Your task to perform on an android device: set default search engine in the chrome app Image 0: 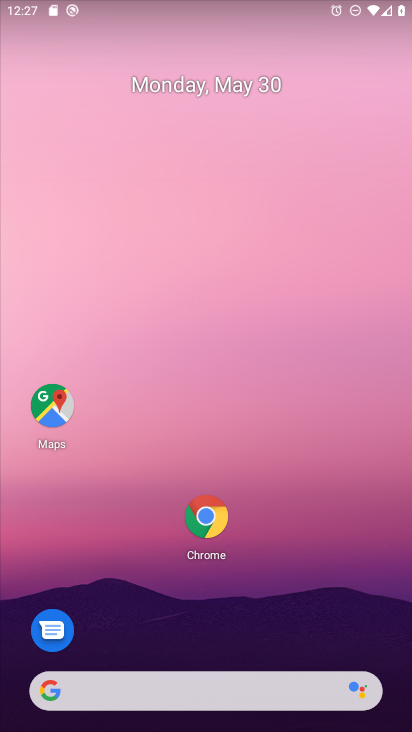
Step 0: press home button
Your task to perform on an android device: set default search engine in the chrome app Image 1: 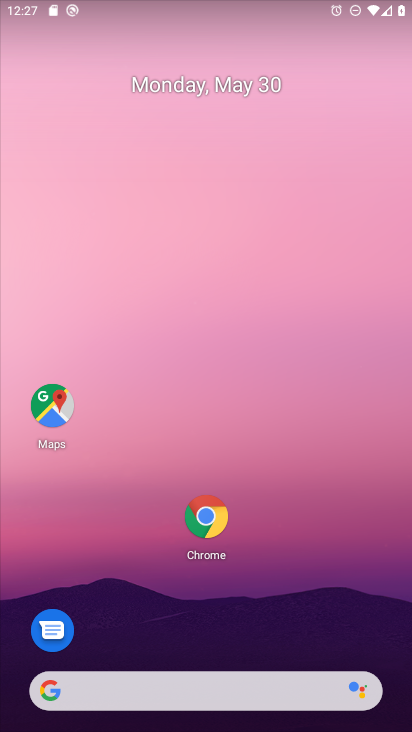
Step 1: click (203, 520)
Your task to perform on an android device: set default search engine in the chrome app Image 2: 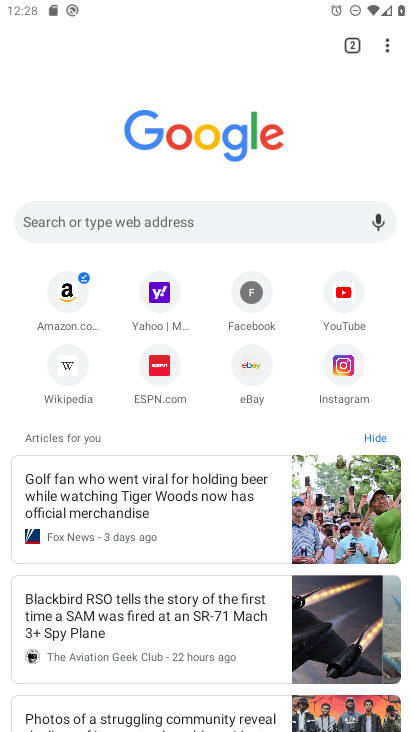
Step 2: drag from (387, 49) to (263, 382)
Your task to perform on an android device: set default search engine in the chrome app Image 3: 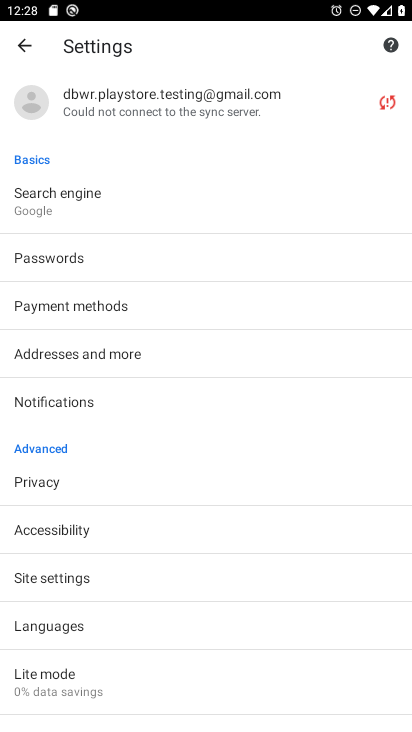
Step 3: click (55, 210)
Your task to perform on an android device: set default search engine in the chrome app Image 4: 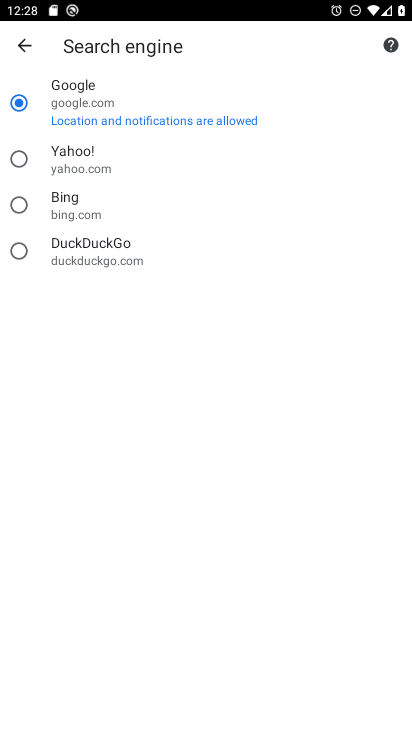
Step 4: click (18, 159)
Your task to perform on an android device: set default search engine in the chrome app Image 5: 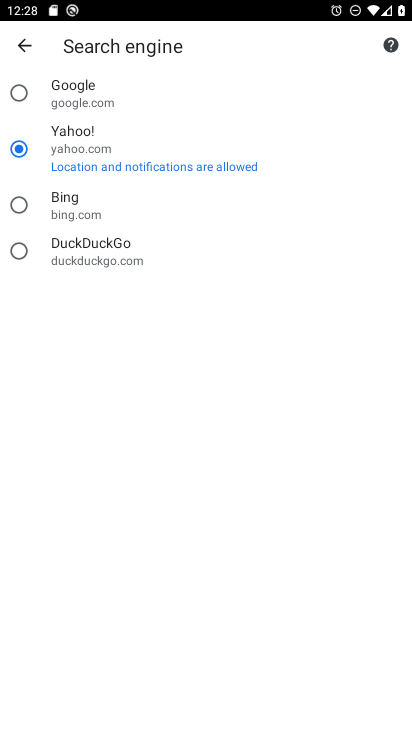
Step 5: task complete